Your task to perform on an android device: Go to location settings Image 0: 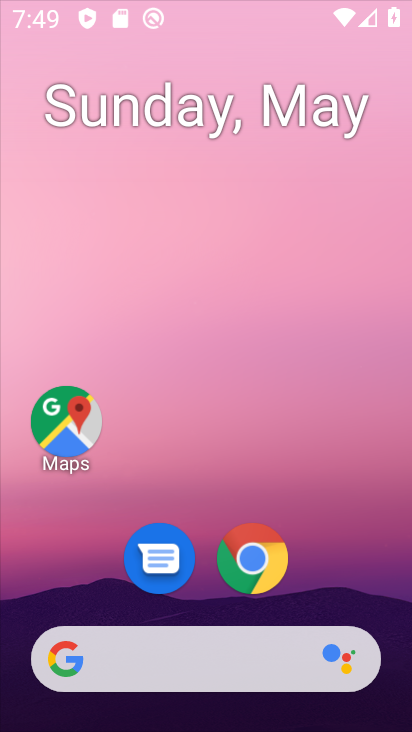
Step 0: click (329, 156)
Your task to perform on an android device: Go to location settings Image 1: 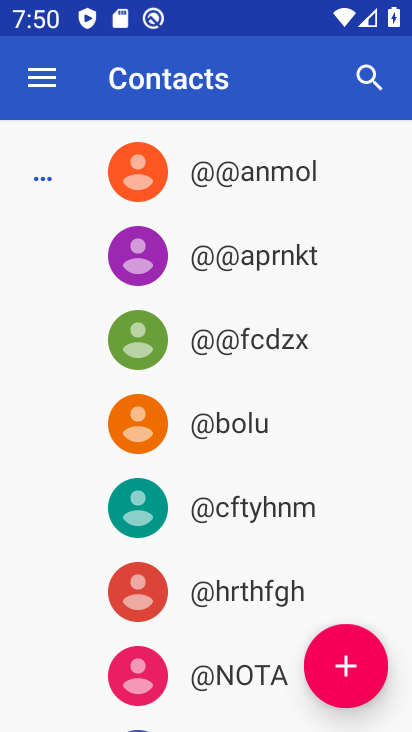
Step 1: press home button
Your task to perform on an android device: Go to location settings Image 2: 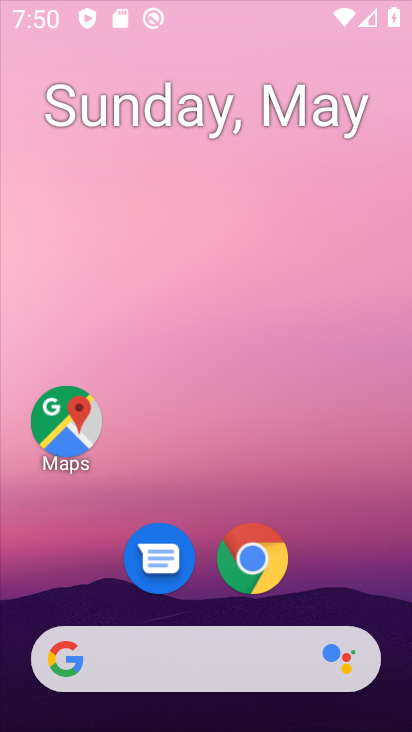
Step 2: drag from (239, 531) to (258, 217)
Your task to perform on an android device: Go to location settings Image 3: 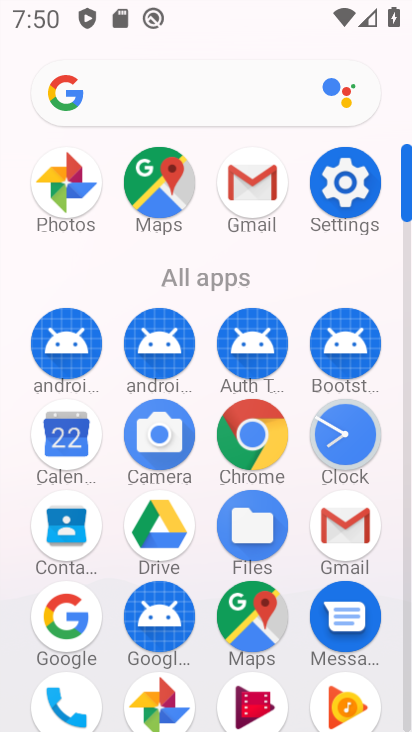
Step 3: click (358, 132)
Your task to perform on an android device: Go to location settings Image 4: 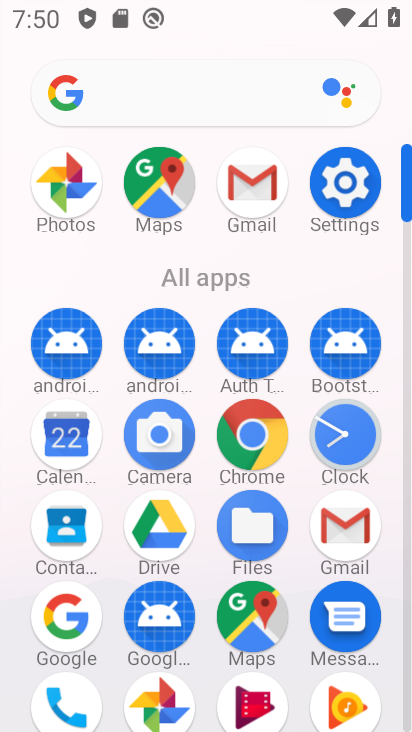
Step 4: click (349, 166)
Your task to perform on an android device: Go to location settings Image 5: 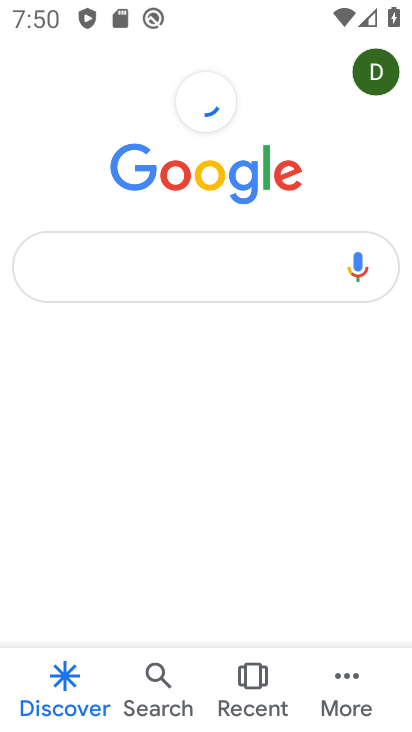
Step 5: press home button
Your task to perform on an android device: Go to location settings Image 6: 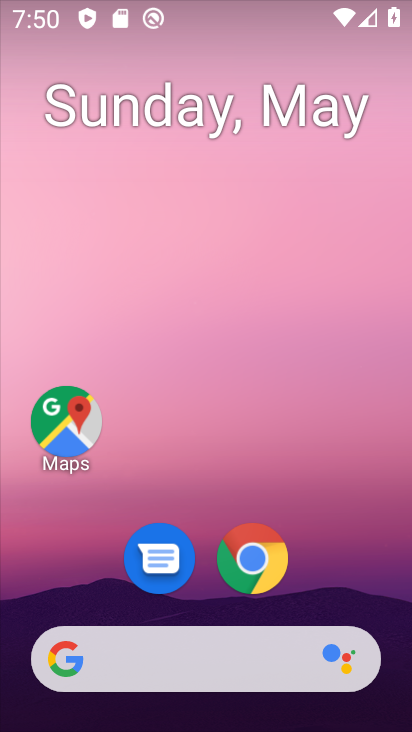
Step 6: drag from (350, 518) to (376, 251)
Your task to perform on an android device: Go to location settings Image 7: 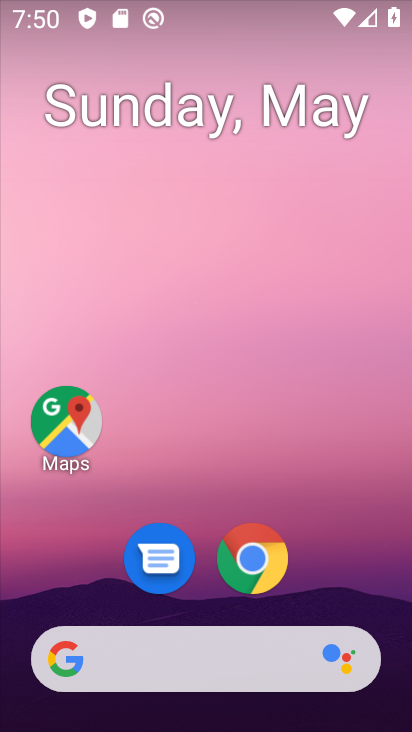
Step 7: drag from (343, 558) to (338, 119)
Your task to perform on an android device: Go to location settings Image 8: 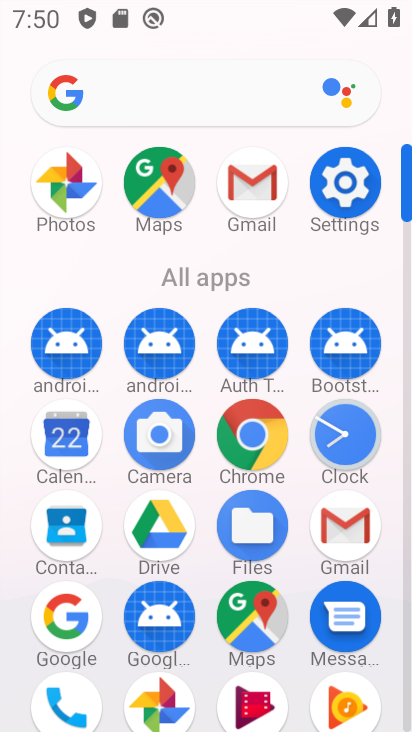
Step 8: click (348, 192)
Your task to perform on an android device: Go to location settings Image 9: 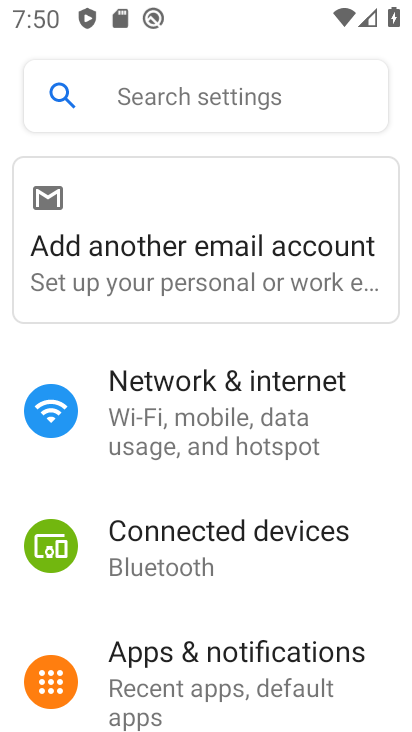
Step 9: drag from (254, 620) to (286, 99)
Your task to perform on an android device: Go to location settings Image 10: 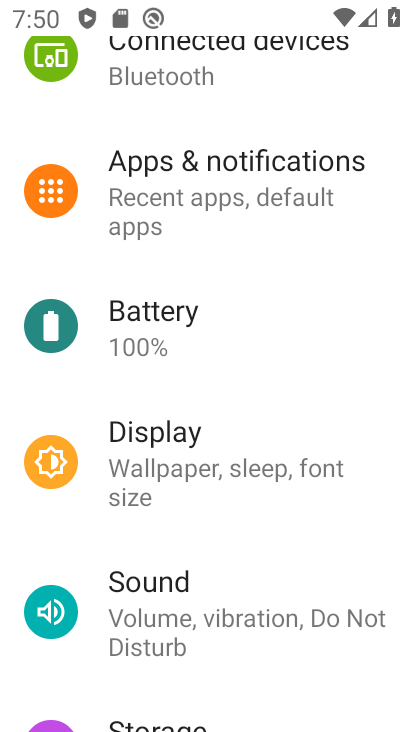
Step 10: drag from (230, 590) to (297, 69)
Your task to perform on an android device: Go to location settings Image 11: 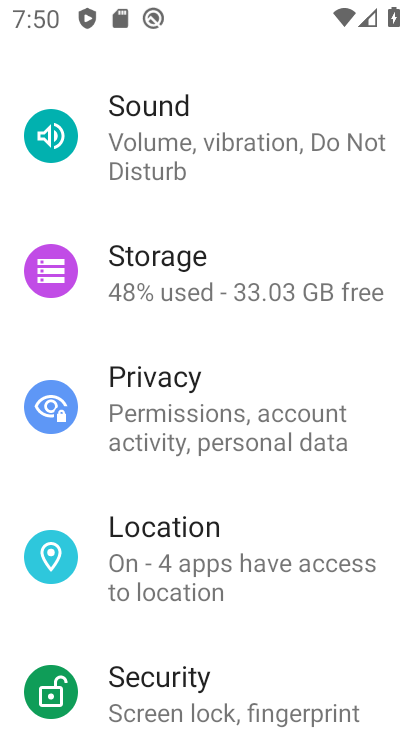
Step 11: click (221, 546)
Your task to perform on an android device: Go to location settings Image 12: 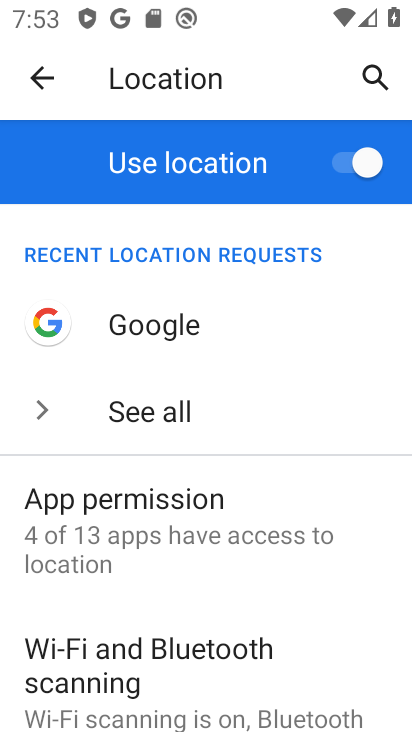
Step 12: task complete